Your task to perform on an android device: turn notification dots on Image 0: 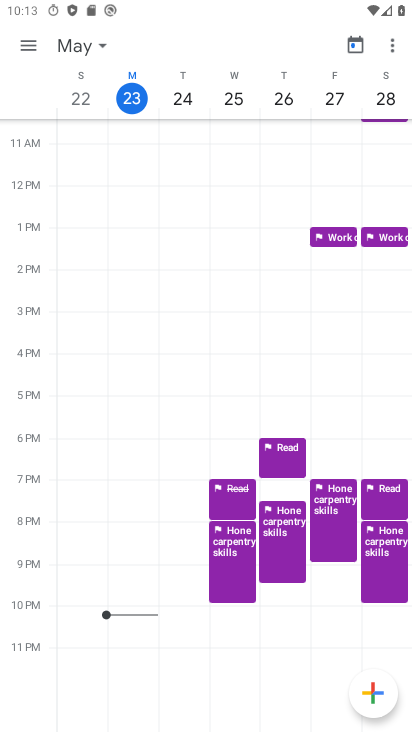
Step 0: press home button
Your task to perform on an android device: turn notification dots on Image 1: 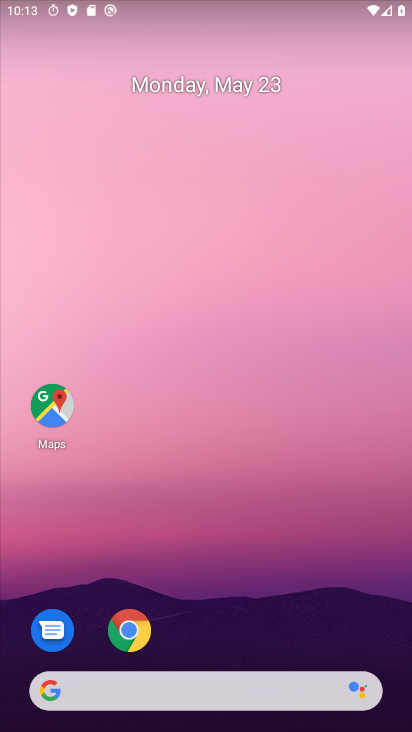
Step 1: drag from (237, 657) to (250, 0)
Your task to perform on an android device: turn notification dots on Image 2: 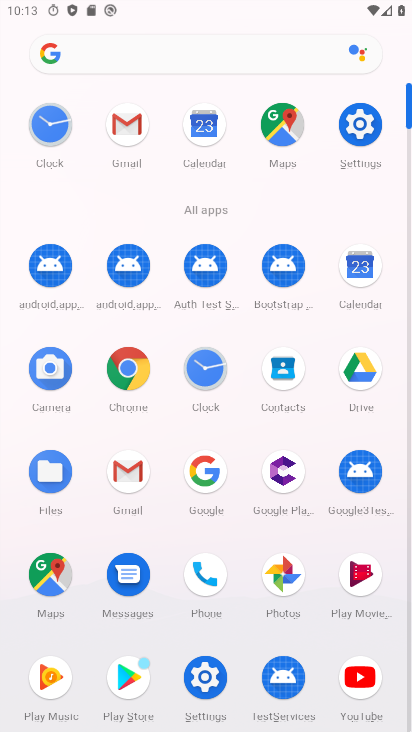
Step 2: click (360, 121)
Your task to perform on an android device: turn notification dots on Image 3: 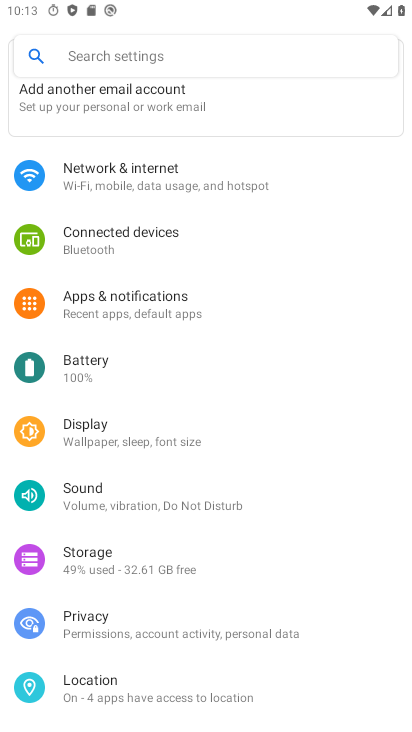
Step 3: click (101, 302)
Your task to perform on an android device: turn notification dots on Image 4: 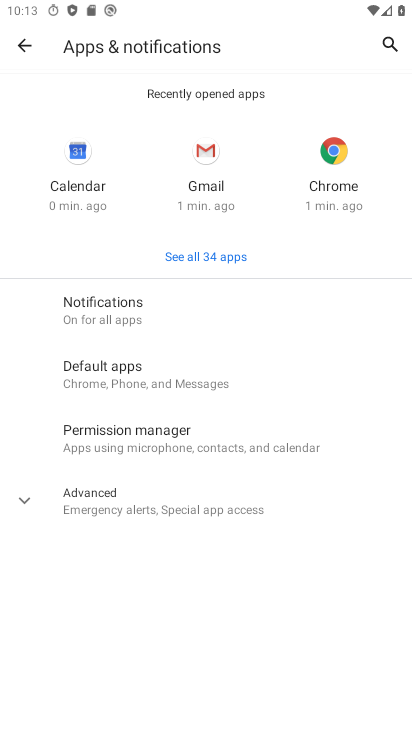
Step 4: click (105, 311)
Your task to perform on an android device: turn notification dots on Image 5: 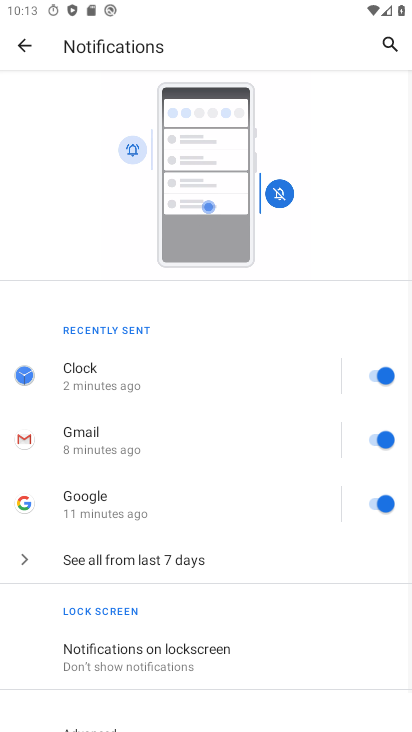
Step 5: drag from (137, 473) to (141, 175)
Your task to perform on an android device: turn notification dots on Image 6: 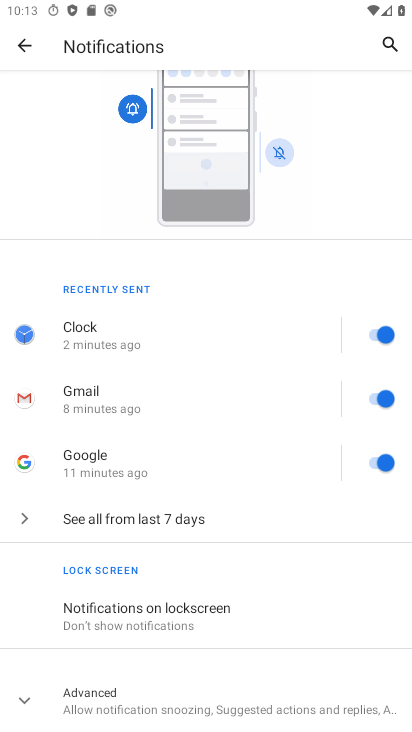
Step 6: click (21, 705)
Your task to perform on an android device: turn notification dots on Image 7: 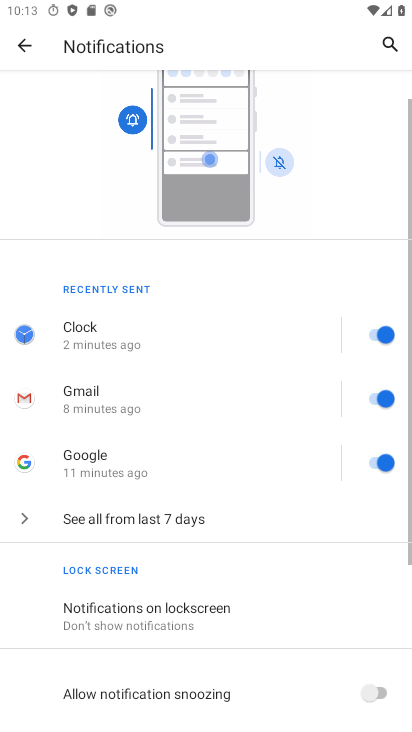
Step 7: task complete